Your task to perform on an android device: turn vacation reply on in the gmail app Image 0: 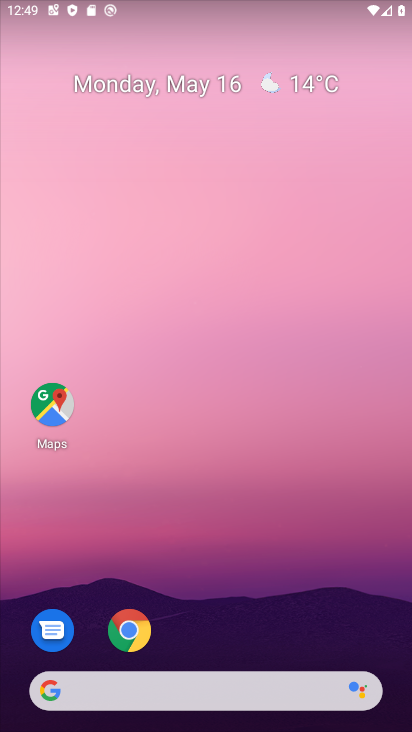
Step 0: drag from (326, 641) to (283, 106)
Your task to perform on an android device: turn vacation reply on in the gmail app Image 1: 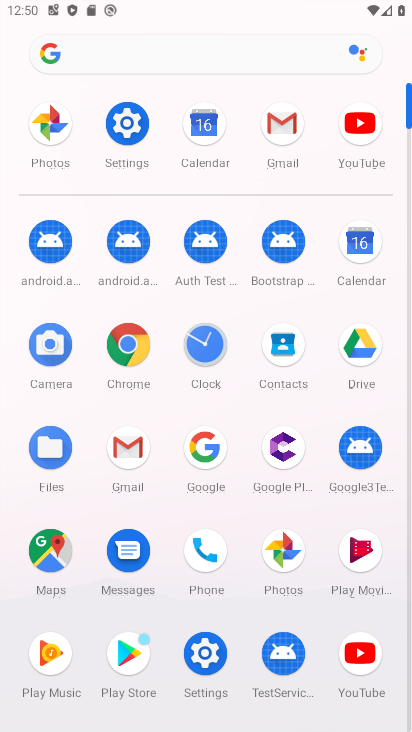
Step 1: click (131, 444)
Your task to perform on an android device: turn vacation reply on in the gmail app Image 2: 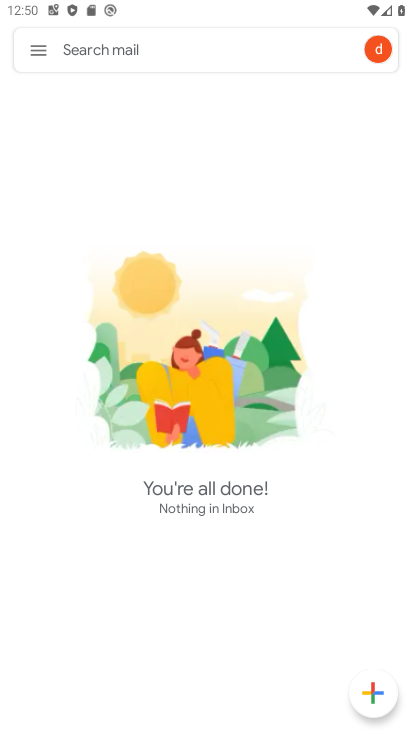
Step 2: click (38, 52)
Your task to perform on an android device: turn vacation reply on in the gmail app Image 3: 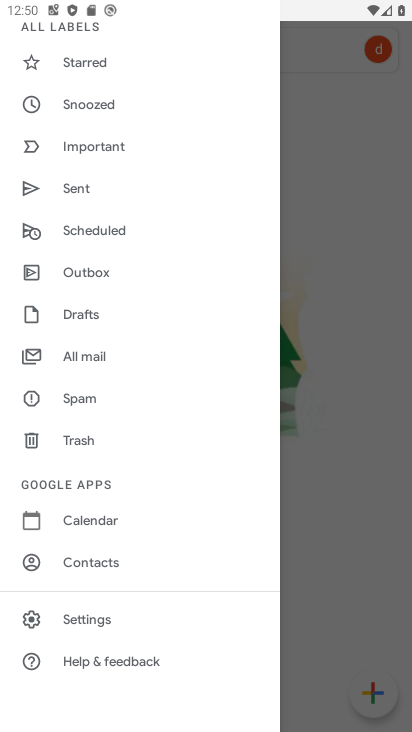
Step 3: click (102, 618)
Your task to perform on an android device: turn vacation reply on in the gmail app Image 4: 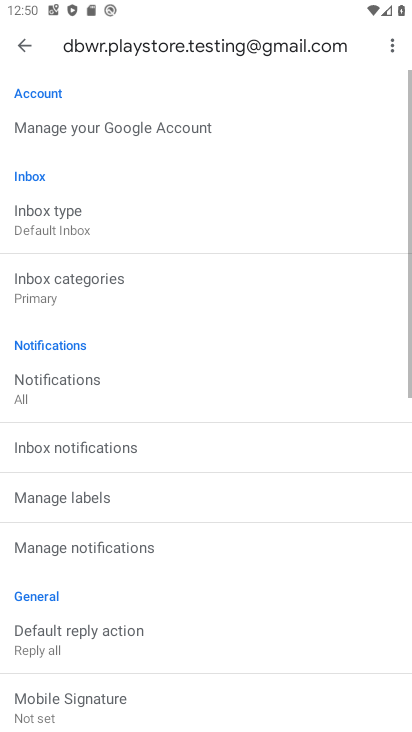
Step 4: drag from (171, 636) to (150, 114)
Your task to perform on an android device: turn vacation reply on in the gmail app Image 5: 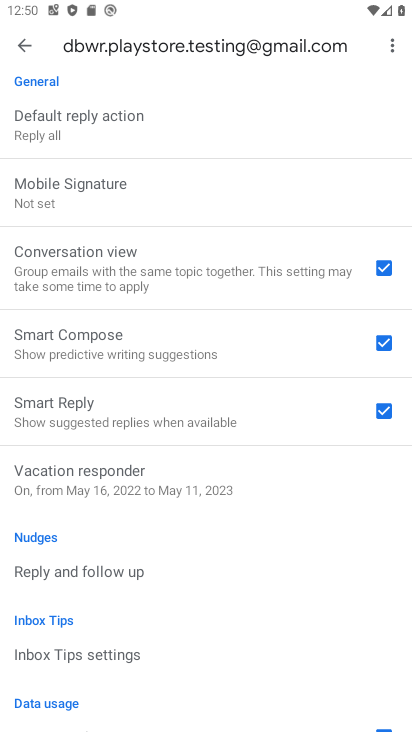
Step 5: click (147, 465)
Your task to perform on an android device: turn vacation reply on in the gmail app Image 6: 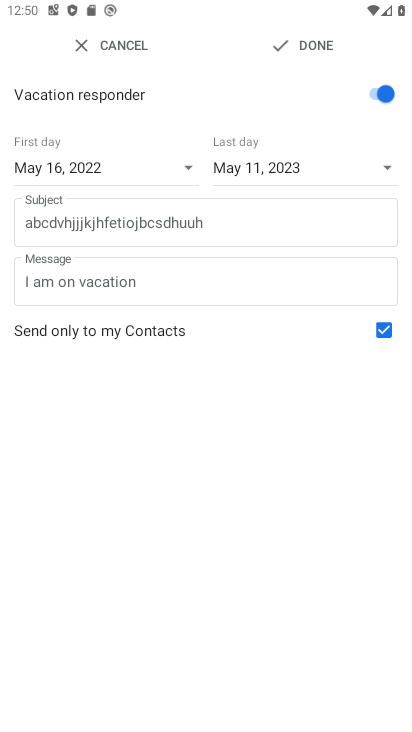
Step 6: task complete